Your task to perform on an android device: Go to privacy settings Image 0: 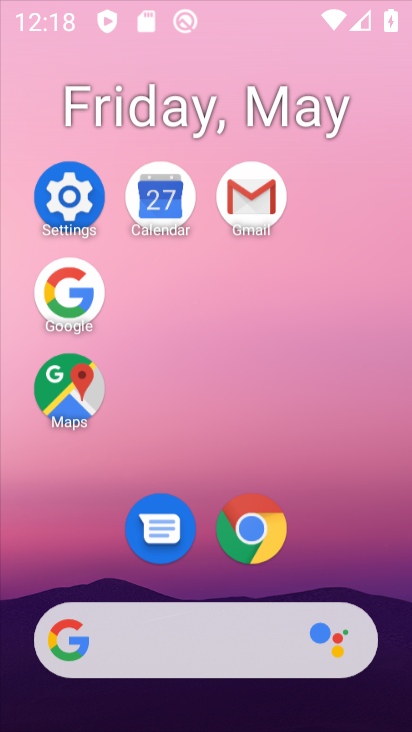
Step 0: click (56, 188)
Your task to perform on an android device: Go to privacy settings Image 1: 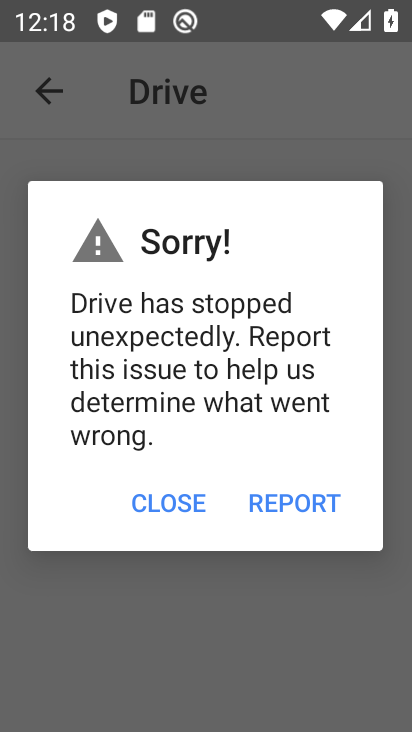
Step 1: press home button
Your task to perform on an android device: Go to privacy settings Image 2: 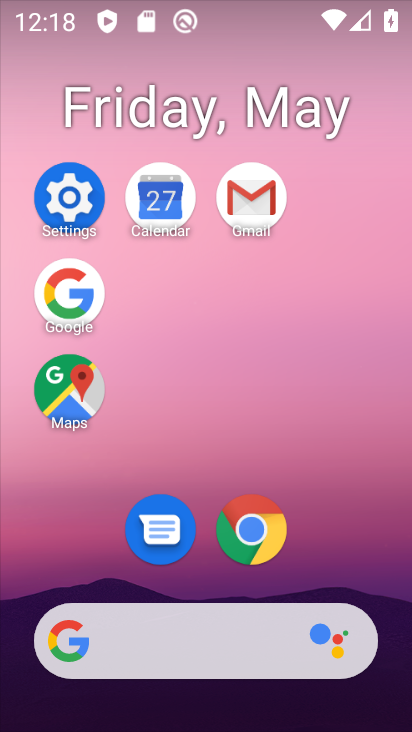
Step 2: click (75, 173)
Your task to perform on an android device: Go to privacy settings Image 3: 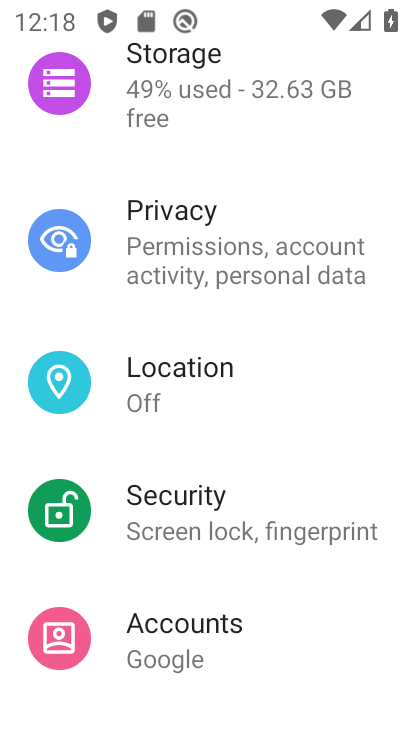
Step 3: click (221, 238)
Your task to perform on an android device: Go to privacy settings Image 4: 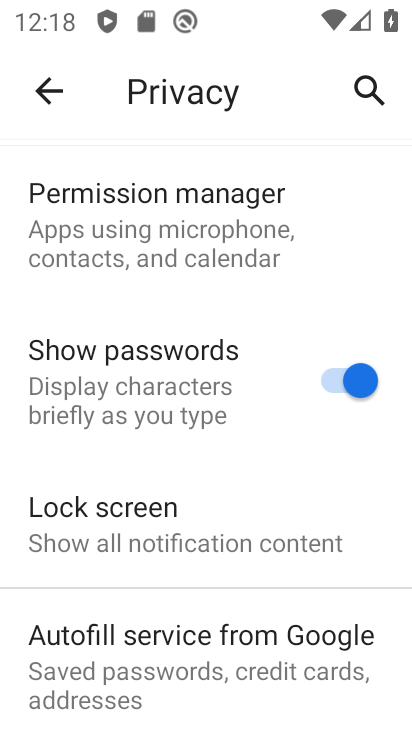
Step 4: task complete